Your task to perform on an android device: toggle notifications settings in the gmail app Image 0: 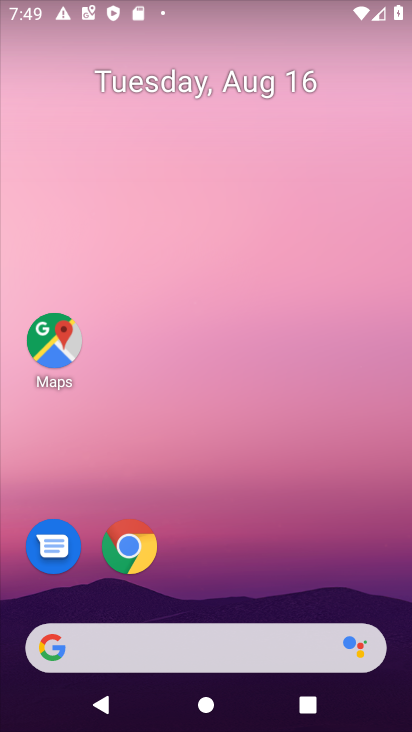
Step 0: drag from (226, 570) to (242, 0)
Your task to perform on an android device: toggle notifications settings in the gmail app Image 1: 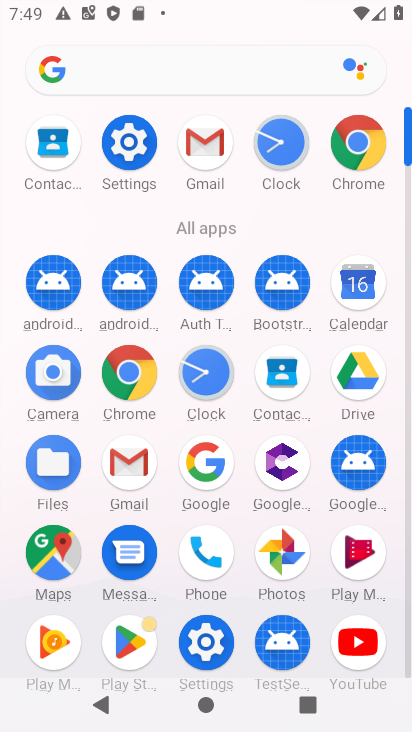
Step 1: click (206, 150)
Your task to perform on an android device: toggle notifications settings in the gmail app Image 2: 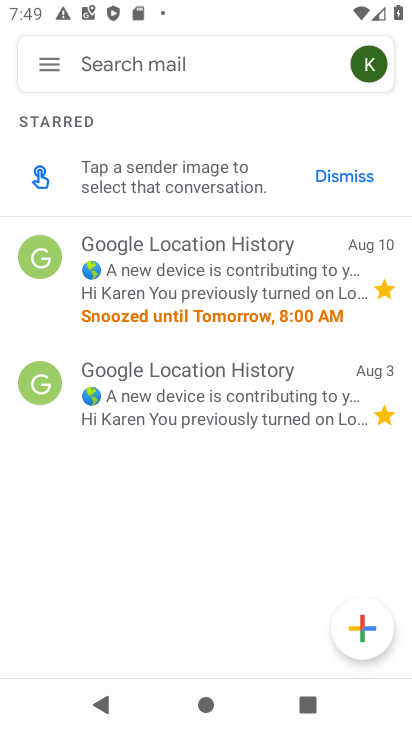
Step 2: click (50, 70)
Your task to perform on an android device: toggle notifications settings in the gmail app Image 3: 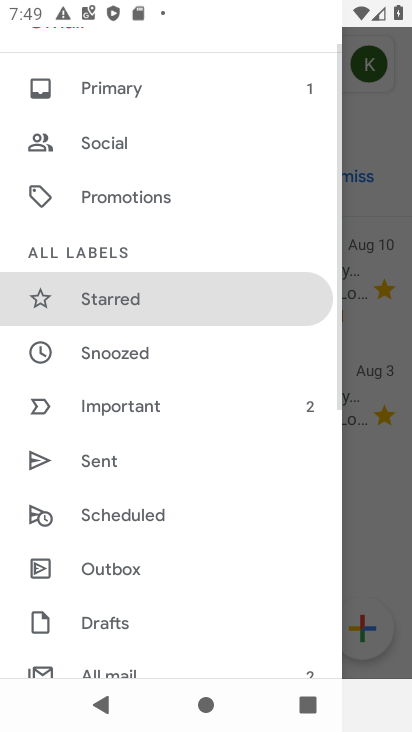
Step 3: drag from (159, 494) to (172, 18)
Your task to perform on an android device: toggle notifications settings in the gmail app Image 4: 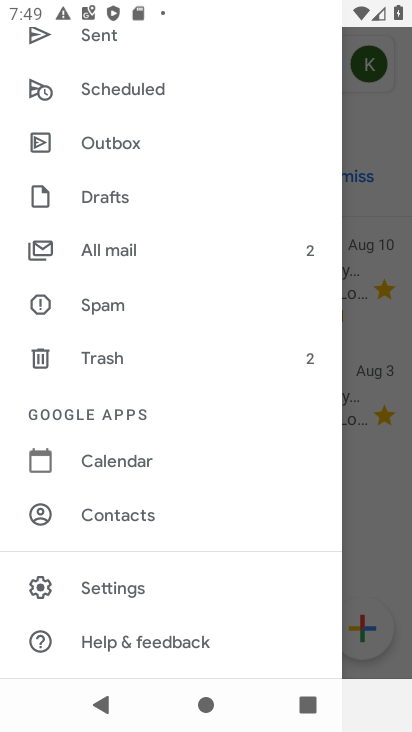
Step 4: click (176, 587)
Your task to perform on an android device: toggle notifications settings in the gmail app Image 5: 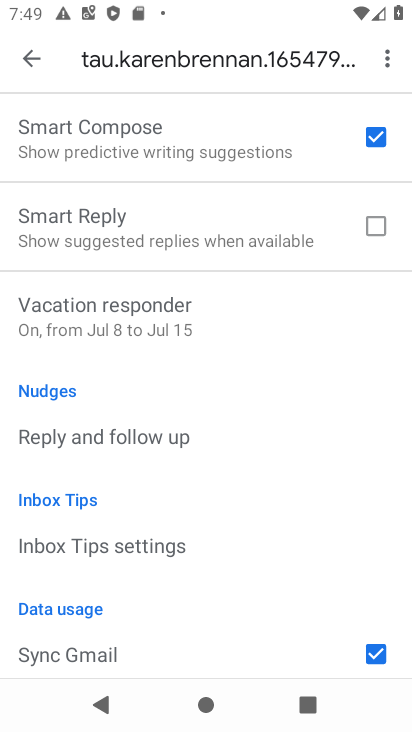
Step 5: drag from (233, 327) to (316, 679)
Your task to perform on an android device: toggle notifications settings in the gmail app Image 6: 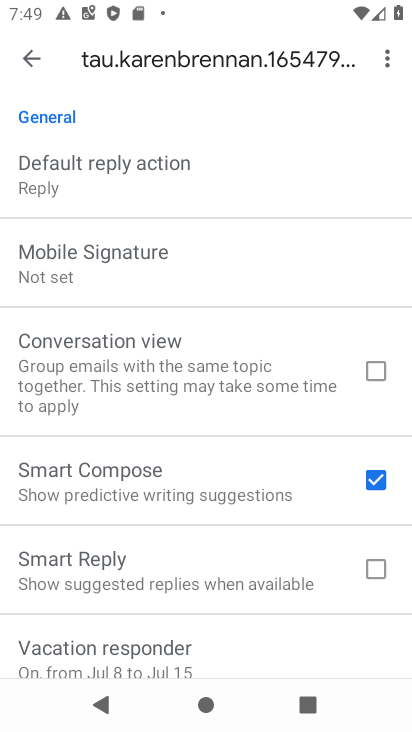
Step 6: drag from (242, 232) to (282, 632)
Your task to perform on an android device: toggle notifications settings in the gmail app Image 7: 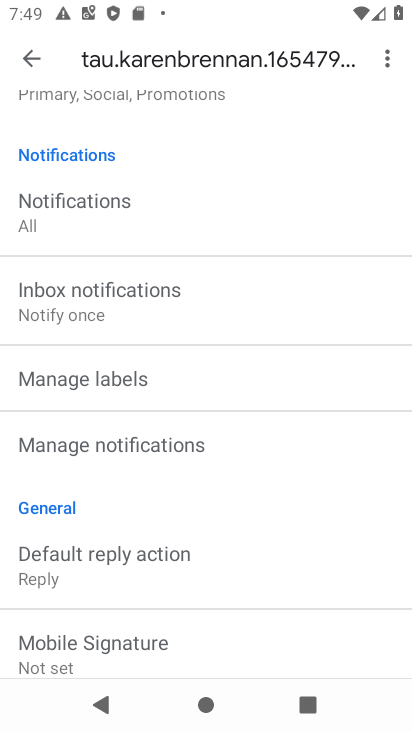
Step 7: click (226, 439)
Your task to perform on an android device: toggle notifications settings in the gmail app Image 8: 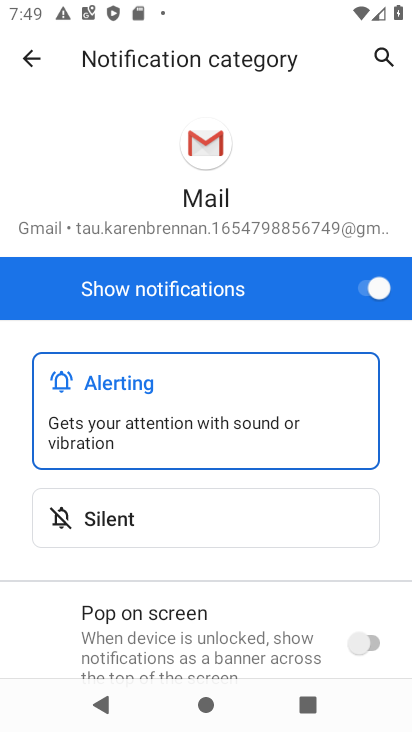
Step 8: click (370, 284)
Your task to perform on an android device: toggle notifications settings in the gmail app Image 9: 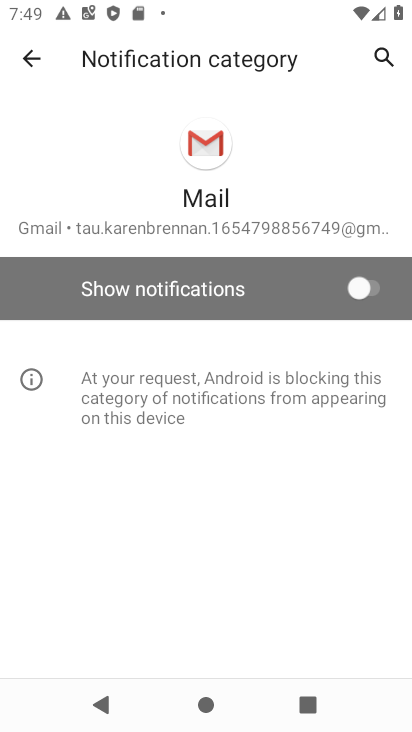
Step 9: task complete